Your task to perform on an android device: open a bookmark in the chrome app Image 0: 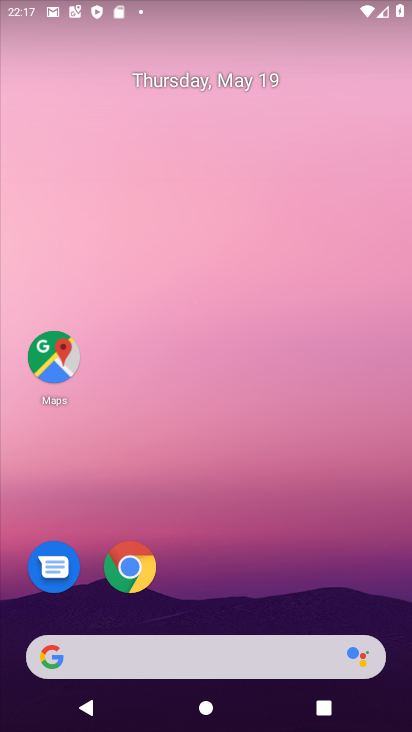
Step 0: press home button
Your task to perform on an android device: open a bookmark in the chrome app Image 1: 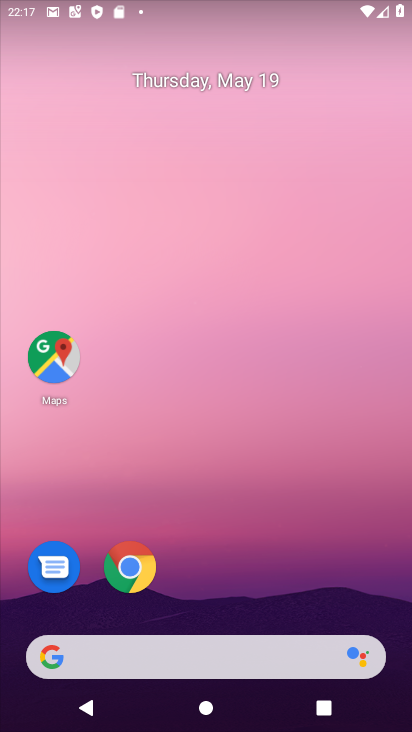
Step 1: click (128, 560)
Your task to perform on an android device: open a bookmark in the chrome app Image 2: 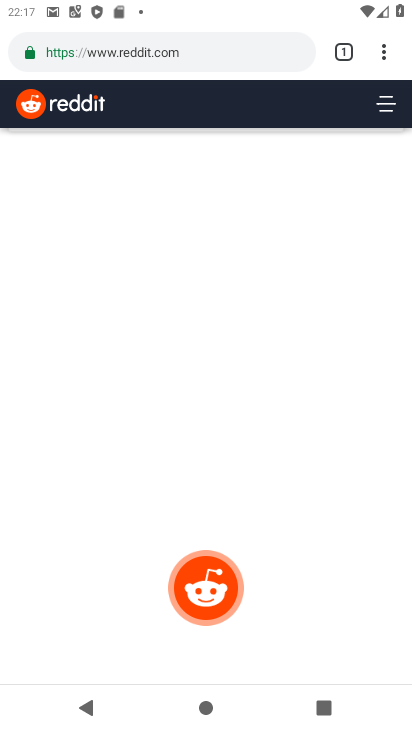
Step 2: click (378, 52)
Your task to perform on an android device: open a bookmark in the chrome app Image 3: 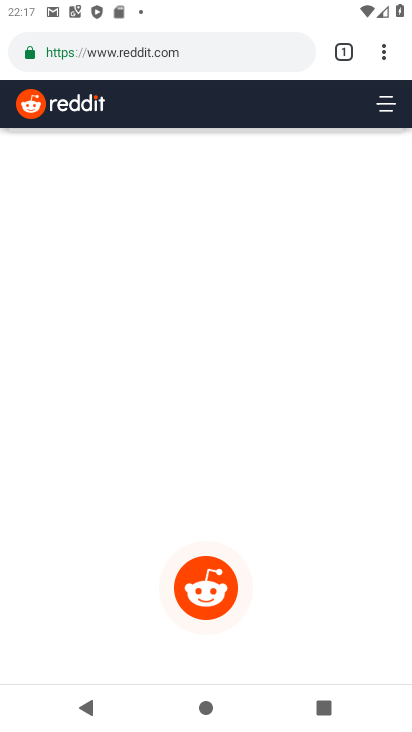
Step 3: click (385, 48)
Your task to perform on an android device: open a bookmark in the chrome app Image 4: 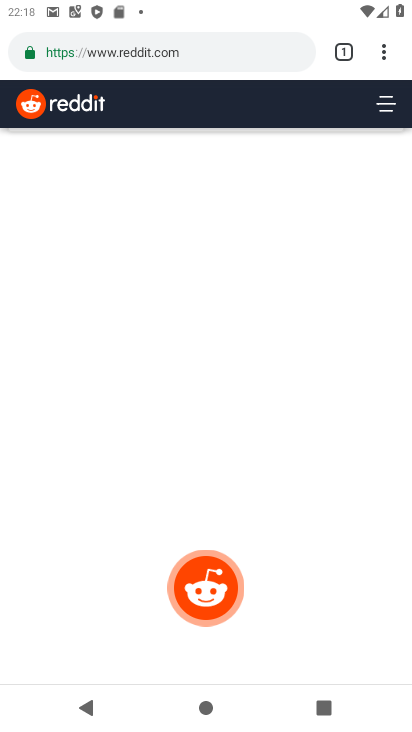
Step 4: click (386, 48)
Your task to perform on an android device: open a bookmark in the chrome app Image 5: 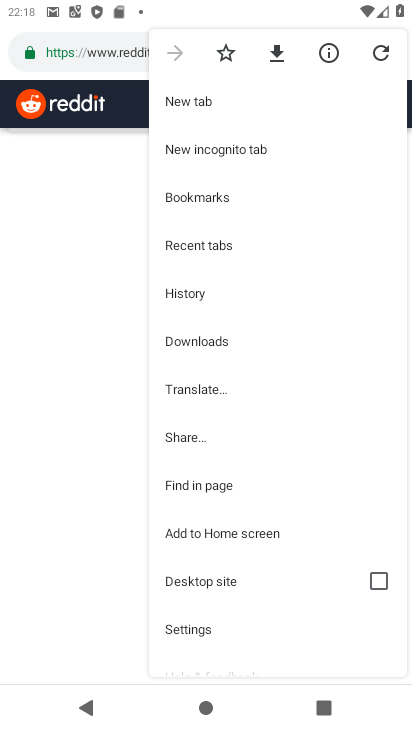
Step 5: click (238, 188)
Your task to perform on an android device: open a bookmark in the chrome app Image 6: 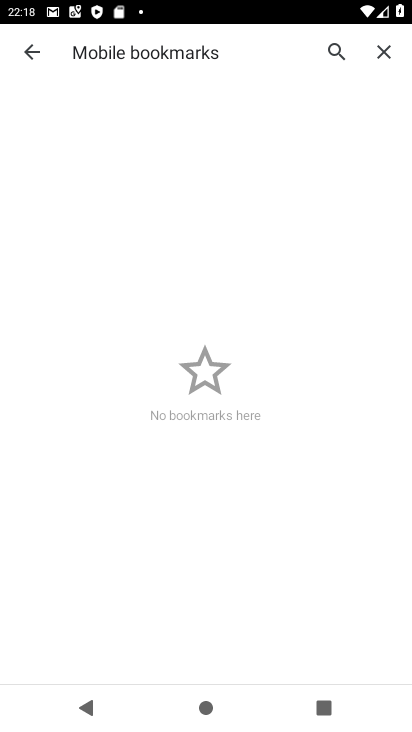
Step 6: task complete